Your task to perform on an android device: Clear all items from cart on amazon. Search for macbook pro 13 inch on amazon, select the first entry, and add it to the cart. Image 0: 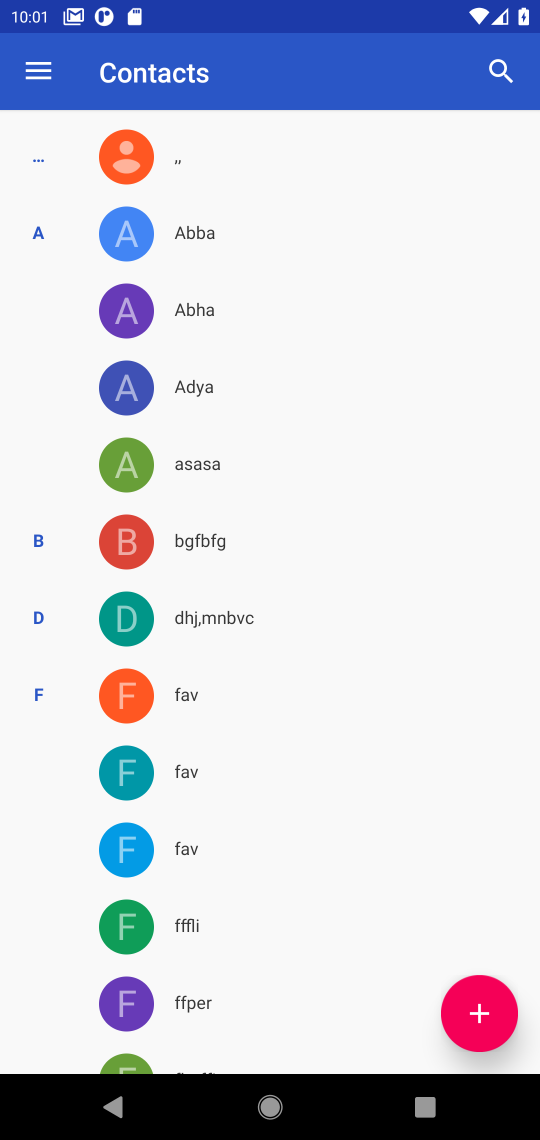
Step 0: press home button
Your task to perform on an android device: Clear all items from cart on amazon. Search for macbook pro 13 inch on amazon, select the first entry, and add it to the cart. Image 1: 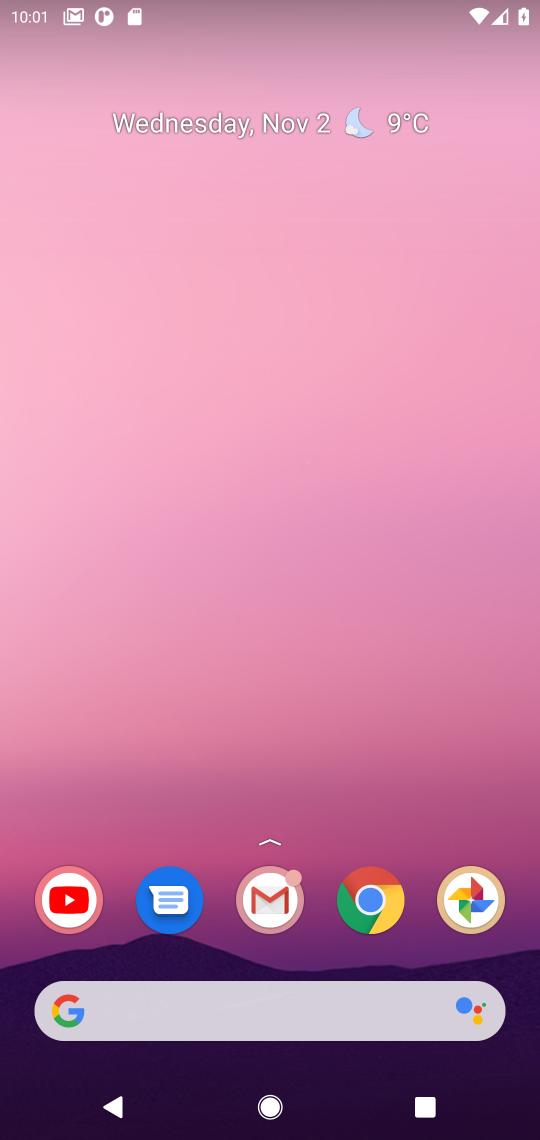
Step 1: click (356, 911)
Your task to perform on an android device: Clear all items from cart on amazon. Search for macbook pro 13 inch on amazon, select the first entry, and add it to the cart. Image 2: 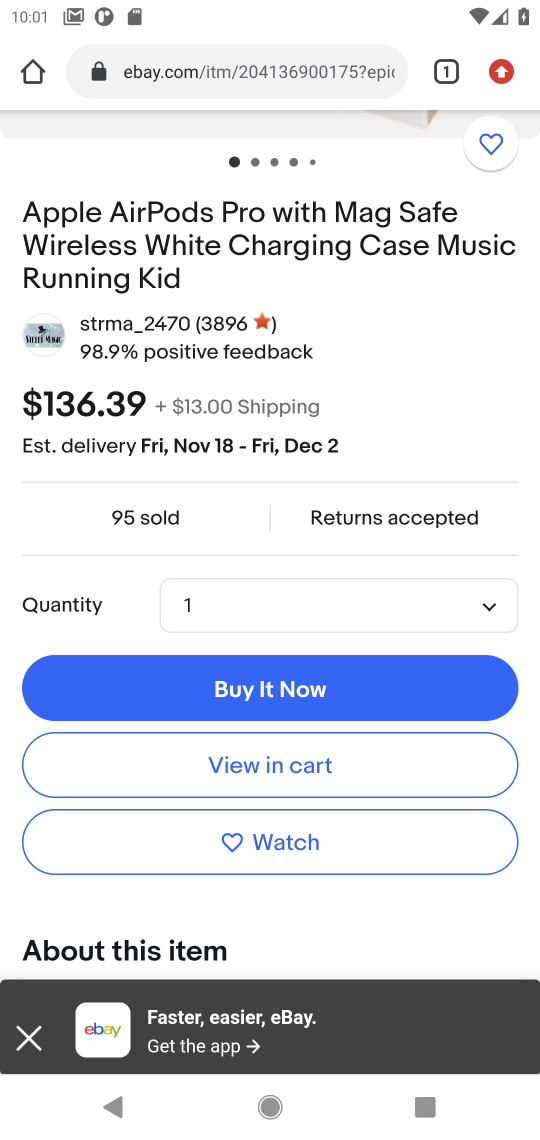
Step 2: click (152, 64)
Your task to perform on an android device: Clear all items from cart on amazon. Search for macbook pro 13 inch on amazon, select the first entry, and add it to the cart. Image 3: 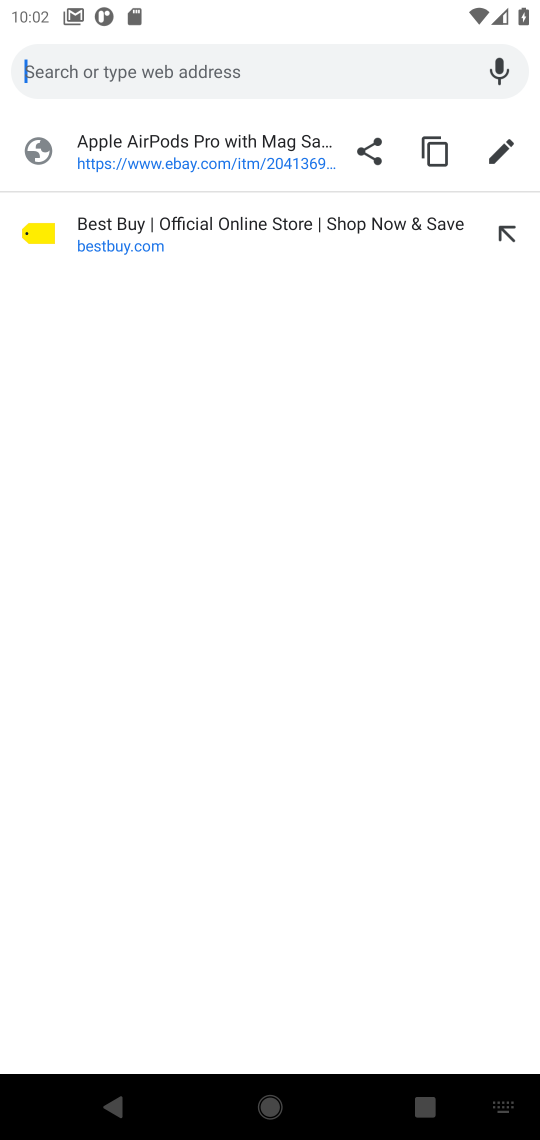
Step 3: type "amazon"
Your task to perform on an android device: Clear all items from cart on amazon. Search for macbook pro 13 inch on amazon, select the first entry, and add it to the cart. Image 4: 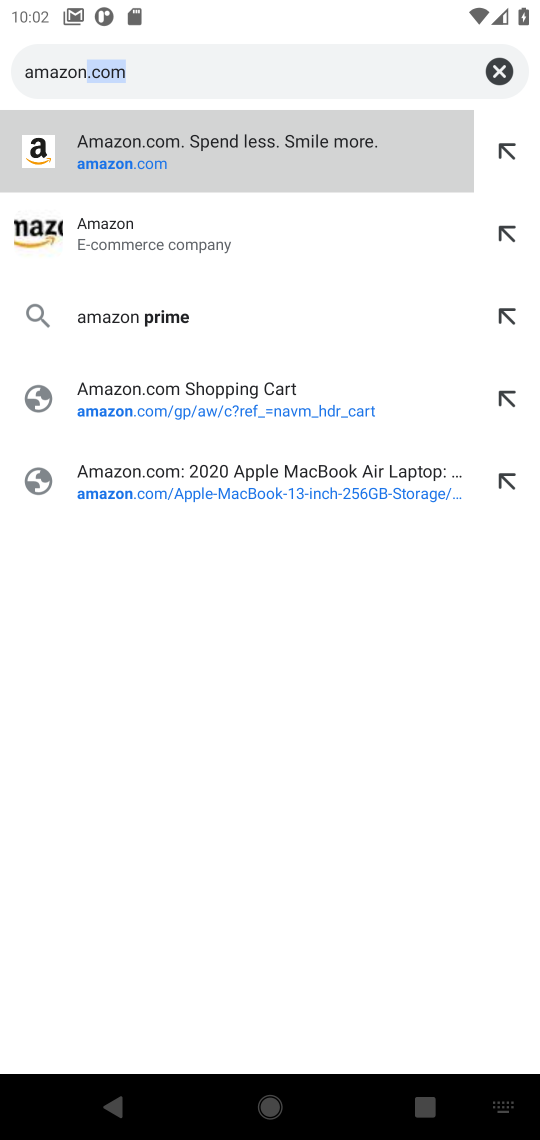
Step 4: click (110, 227)
Your task to perform on an android device: Clear all items from cart on amazon. Search for macbook pro 13 inch on amazon, select the first entry, and add it to the cart. Image 5: 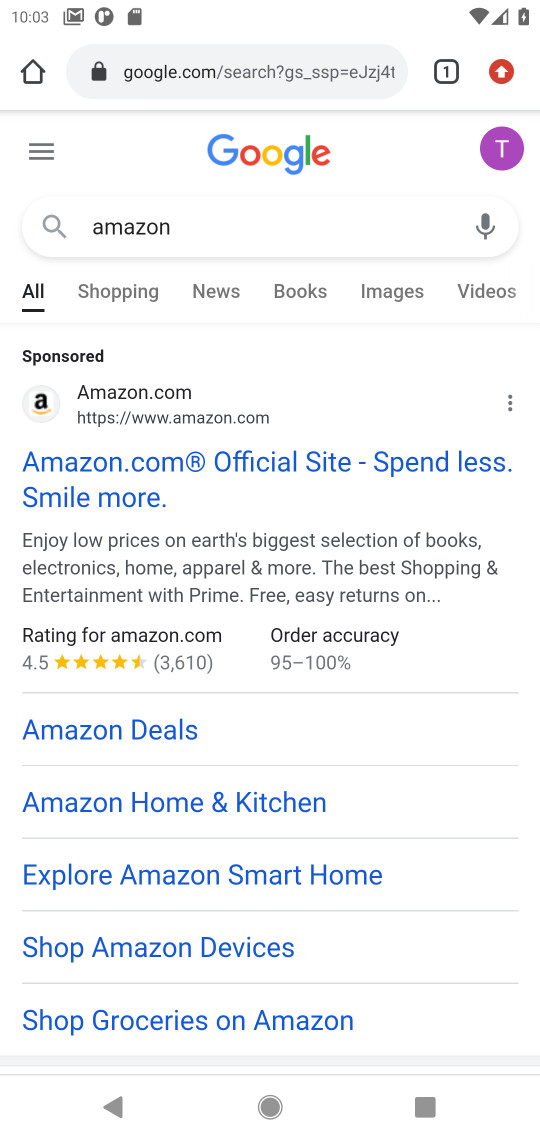
Step 5: click (117, 487)
Your task to perform on an android device: Clear all items from cart on amazon. Search for macbook pro 13 inch on amazon, select the first entry, and add it to the cart. Image 6: 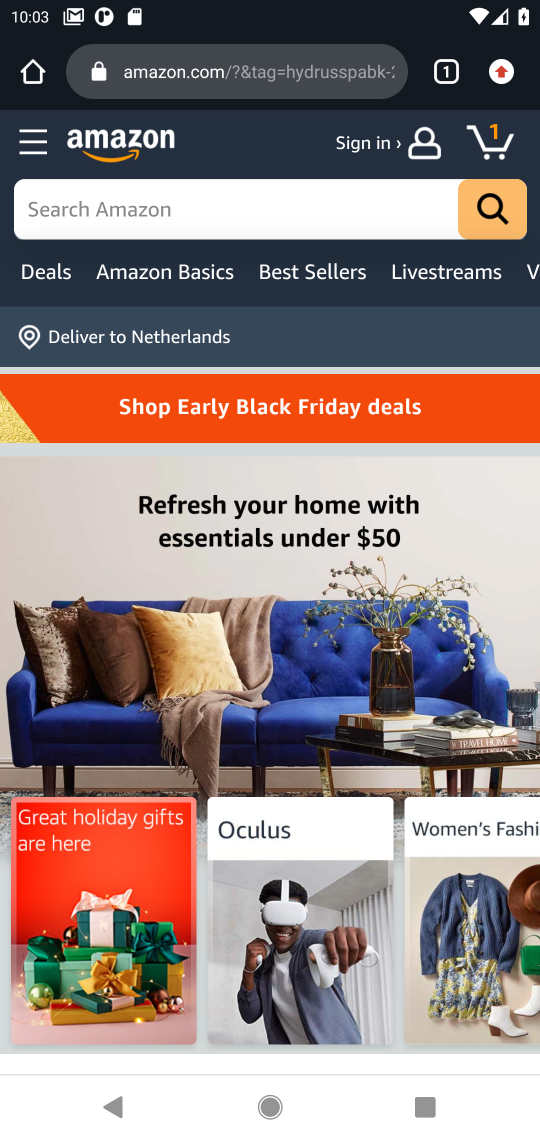
Step 6: click (495, 135)
Your task to perform on an android device: Clear all items from cart on amazon. Search for macbook pro 13 inch on amazon, select the first entry, and add it to the cart. Image 7: 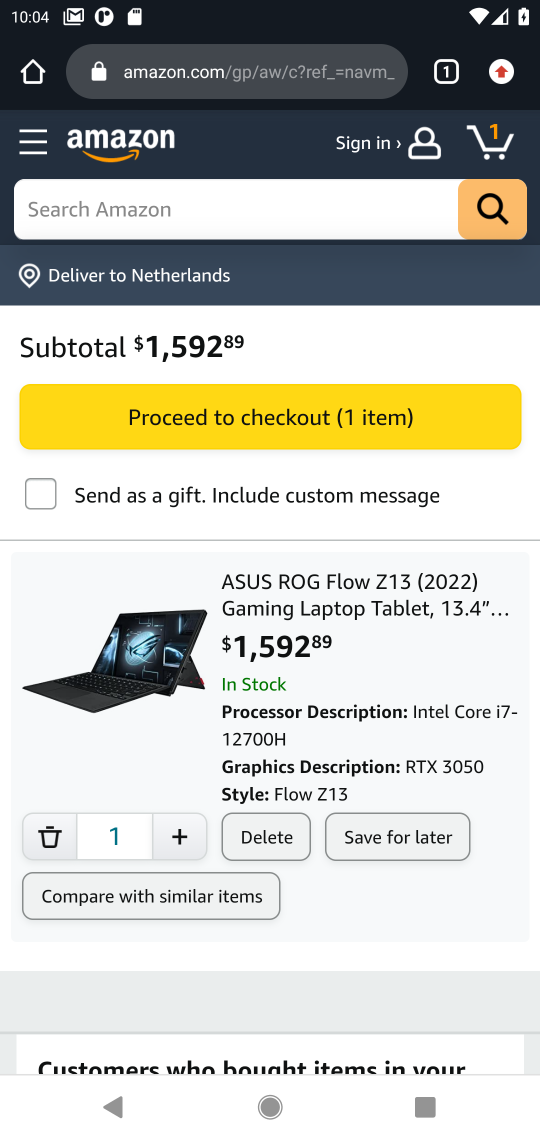
Step 7: click (260, 839)
Your task to perform on an android device: Clear all items from cart on amazon. Search for macbook pro 13 inch on amazon, select the first entry, and add it to the cart. Image 8: 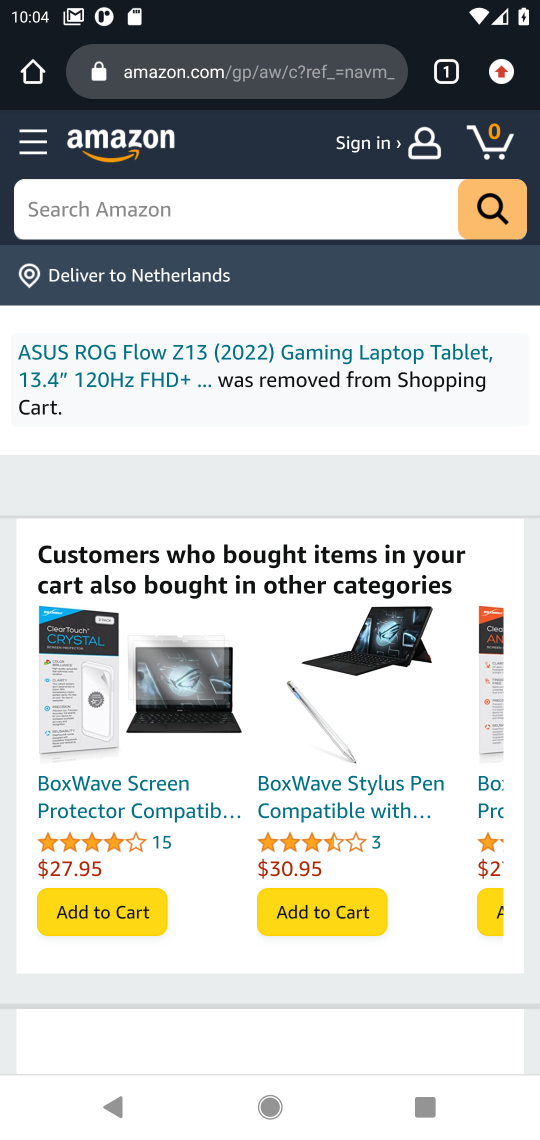
Step 8: click (217, 191)
Your task to perform on an android device: Clear all items from cart on amazon. Search for macbook pro 13 inch on amazon, select the first entry, and add it to the cart. Image 9: 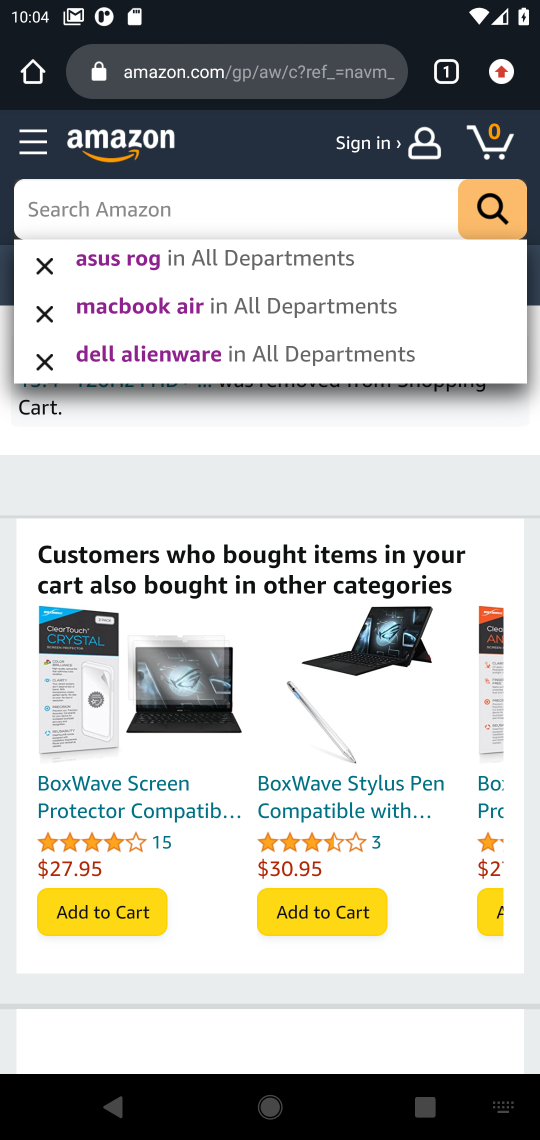
Step 9: type "macbook pro 13 inch"
Your task to perform on an android device: Clear all items from cart on amazon. Search for macbook pro 13 inch on amazon, select the first entry, and add it to the cart. Image 10: 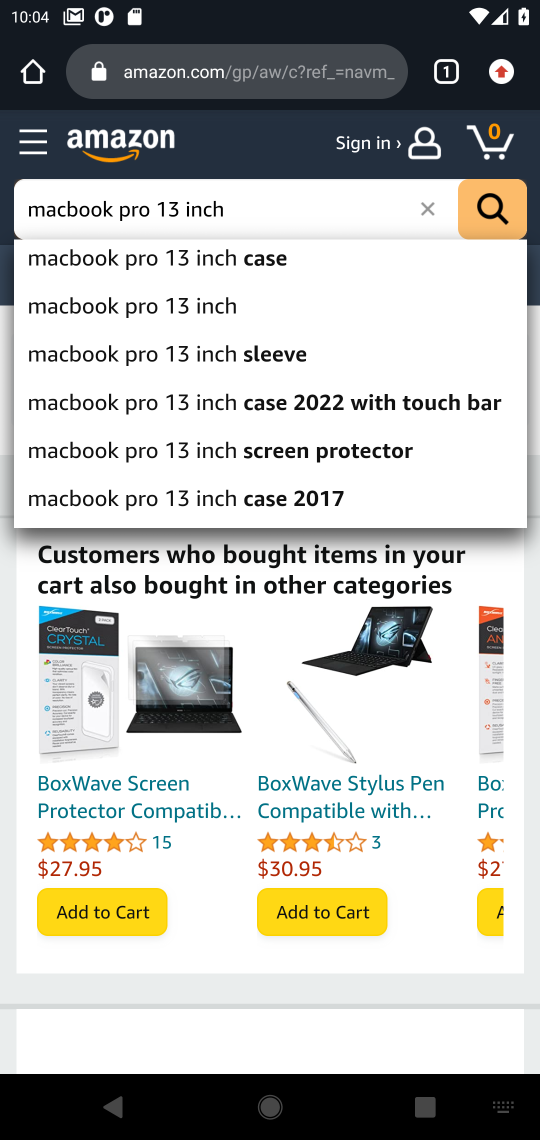
Step 10: click (488, 219)
Your task to perform on an android device: Clear all items from cart on amazon. Search for macbook pro 13 inch on amazon, select the first entry, and add it to the cart. Image 11: 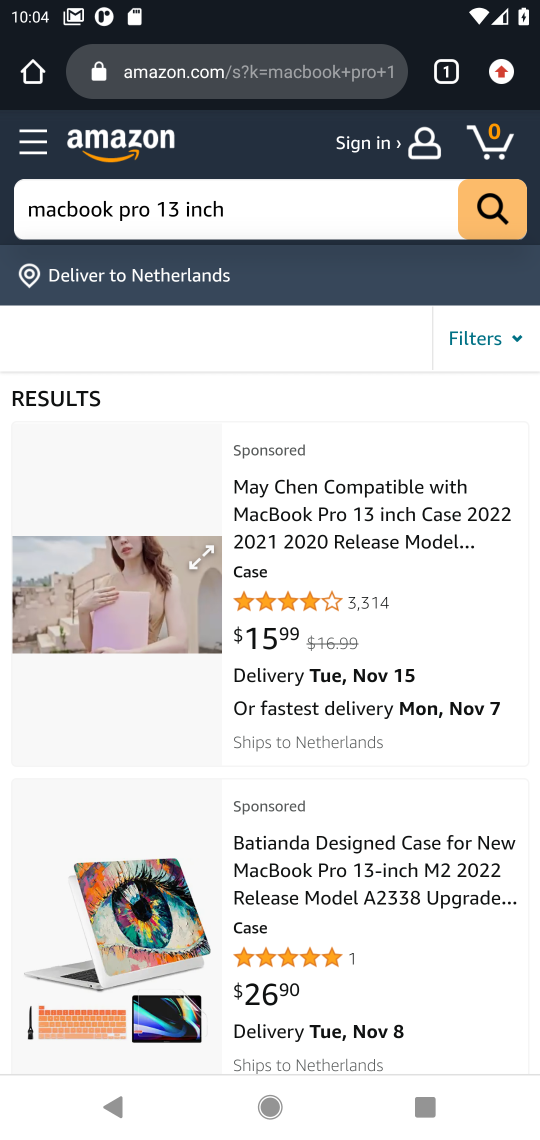
Step 11: drag from (244, 773) to (327, 151)
Your task to perform on an android device: Clear all items from cart on amazon. Search for macbook pro 13 inch on amazon, select the first entry, and add it to the cart. Image 12: 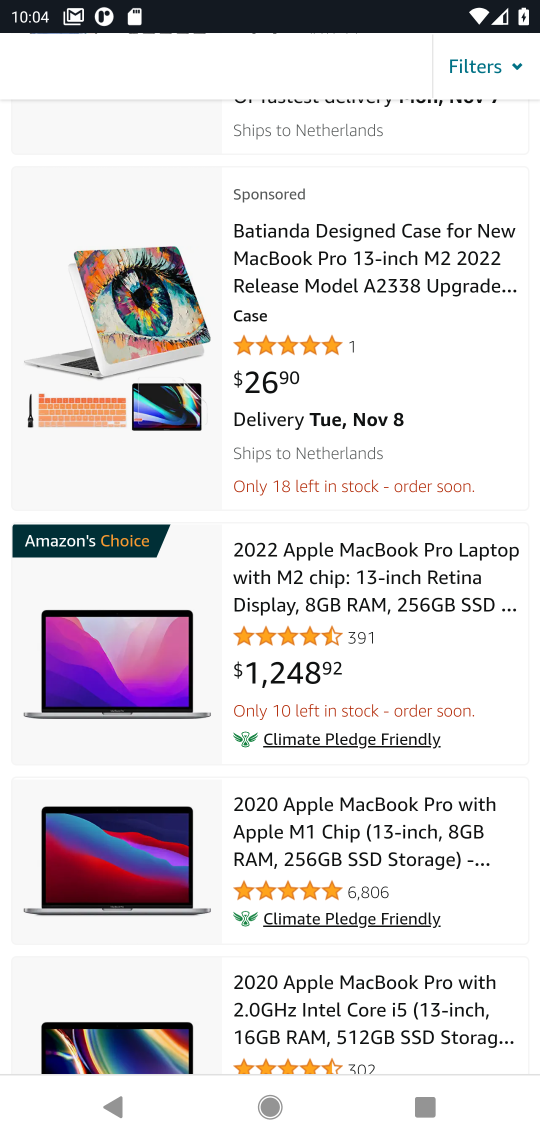
Step 12: click (321, 598)
Your task to perform on an android device: Clear all items from cart on amazon. Search for macbook pro 13 inch on amazon, select the first entry, and add it to the cart. Image 13: 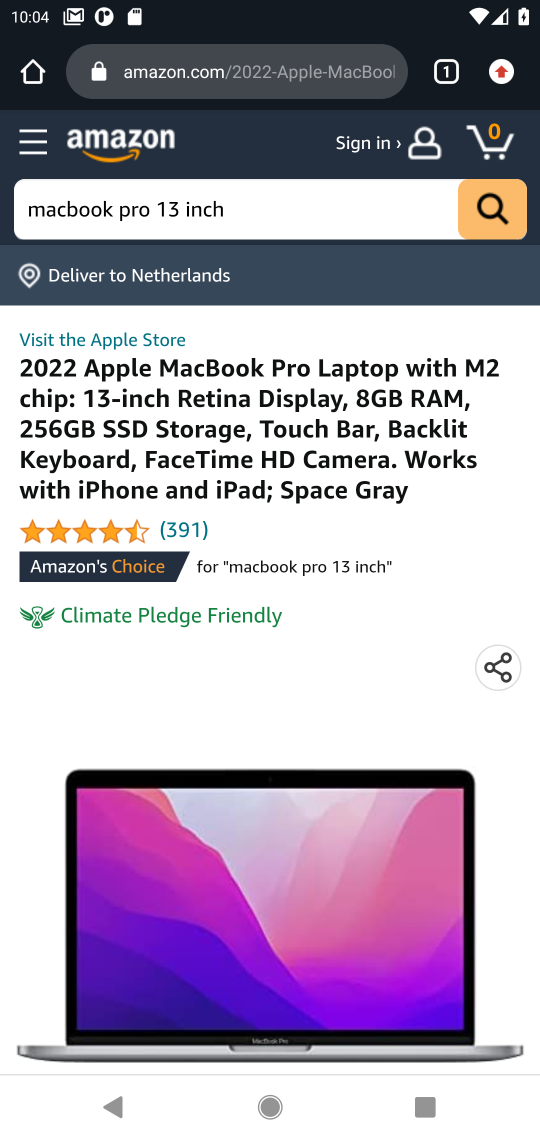
Step 13: drag from (255, 674) to (238, 85)
Your task to perform on an android device: Clear all items from cart on amazon. Search for macbook pro 13 inch on amazon, select the first entry, and add it to the cart. Image 14: 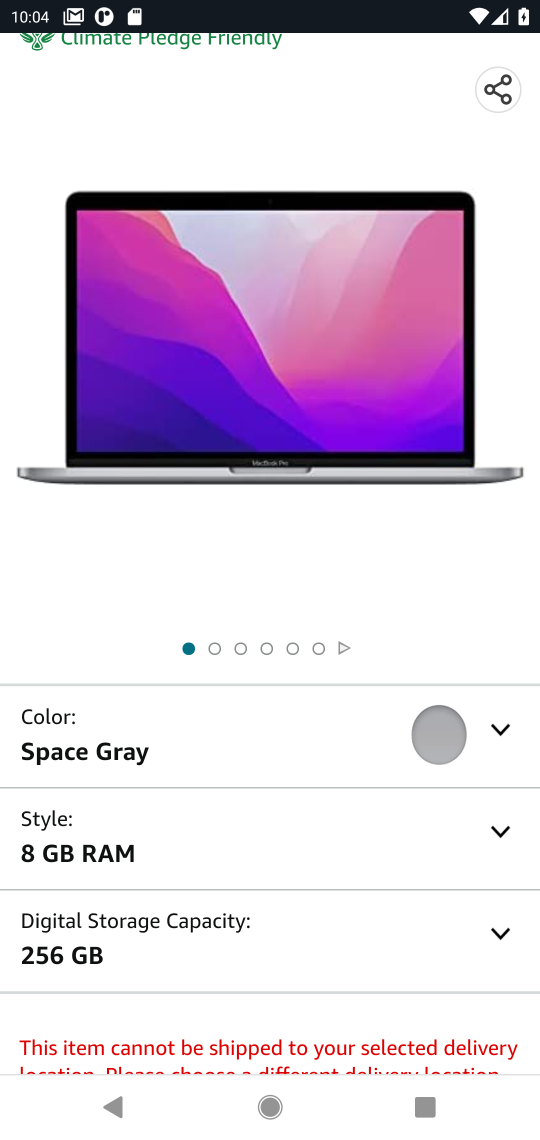
Step 14: drag from (341, 970) to (371, 224)
Your task to perform on an android device: Clear all items from cart on amazon. Search for macbook pro 13 inch on amazon, select the first entry, and add it to the cart. Image 15: 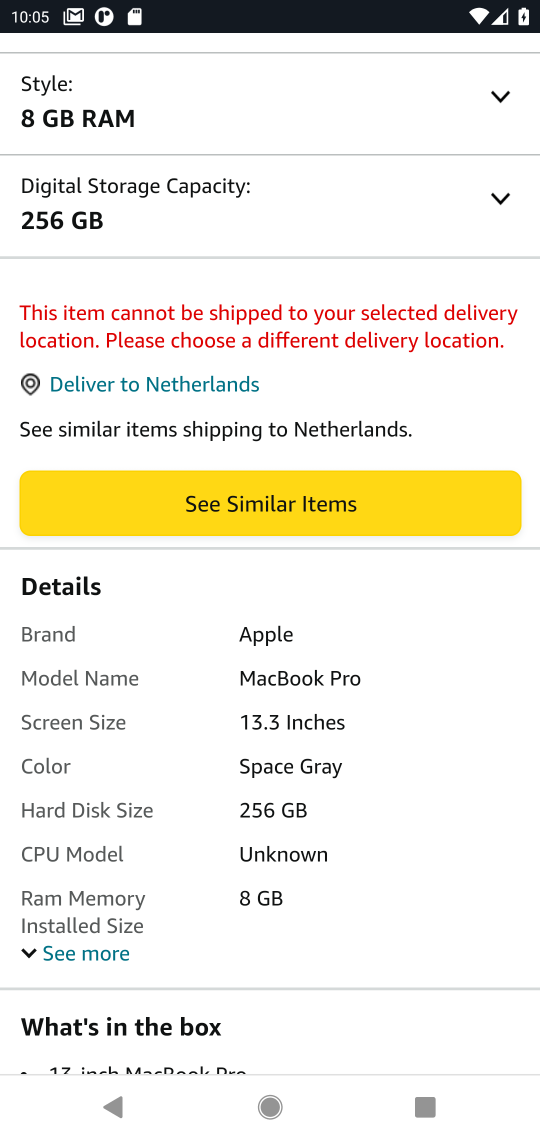
Step 15: click (176, 495)
Your task to perform on an android device: Clear all items from cart on amazon. Search for macbook pro 13 inch on amazon, select the first entry, and add it to the cart. Image 16: 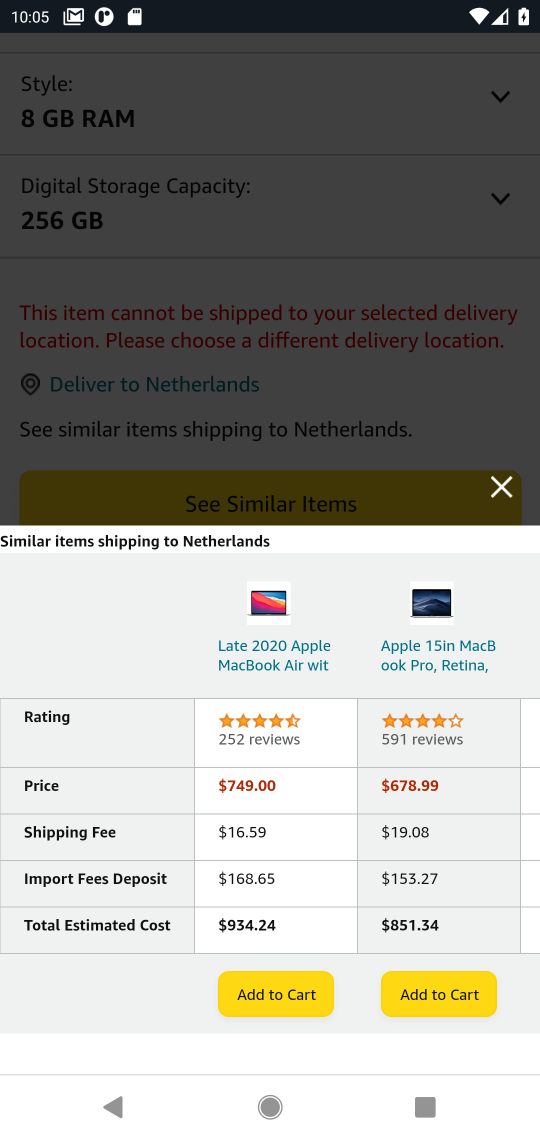
Step 16: task complete